Your task to perform on an android device: turn off wifi Image 0: 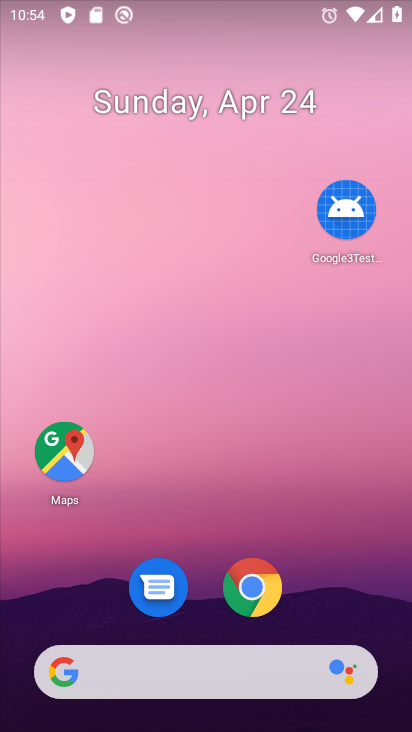
Step 0: drag from (356, 567) to (372, 115)
Your task to perform on an android device: turn off wifi Image 1: 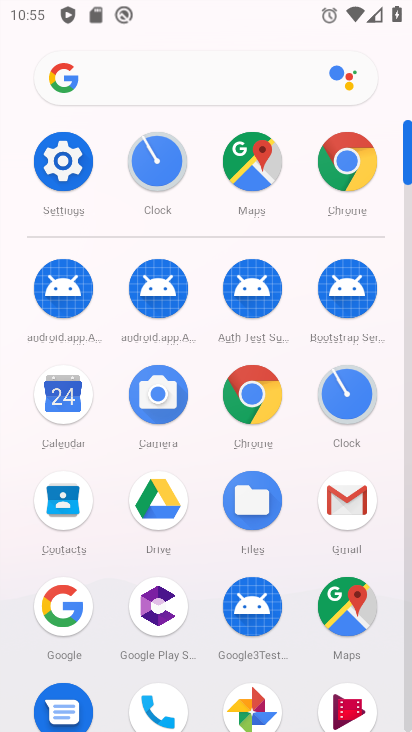
Step 1: click (66, 151)
Your task to perform on an android device: turn off wifi Image 2: 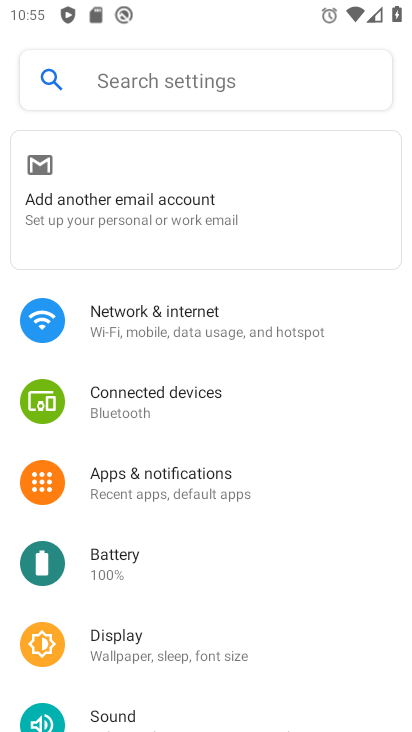
Step 2: click (105, 328)
Your task to perform on an android device: turn off wifi Image 3: 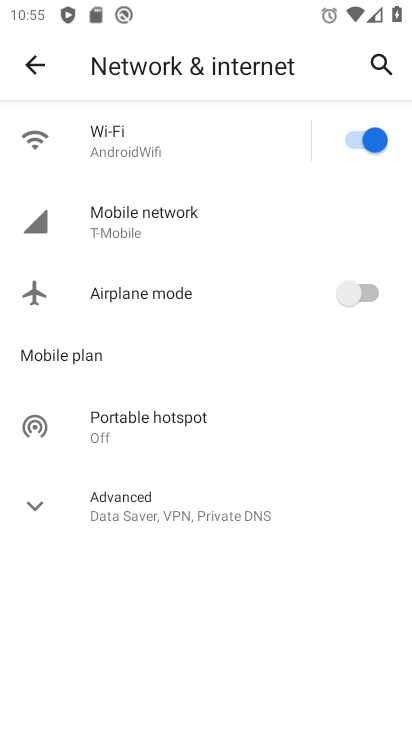
Step 3: click (350, 146)
Your task to perform on an android device: turn off wifi Image 4: 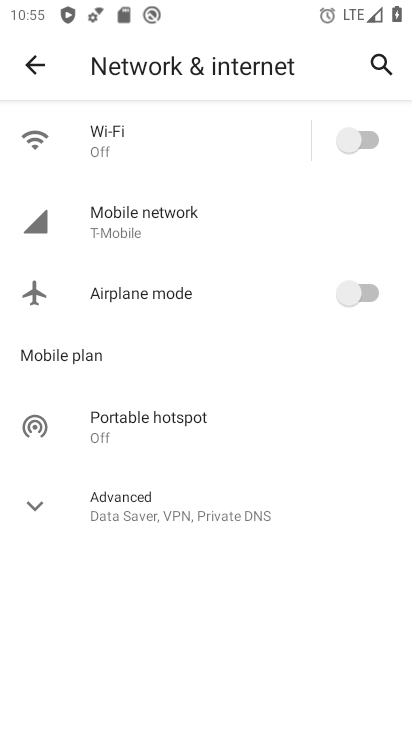
Step 4: task complete